Your task to perform on an android device: What's the weather going to be tomorrow? Image 0: 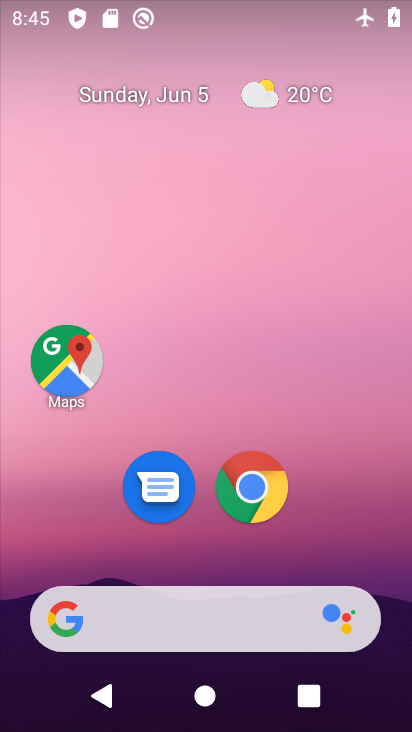
Step 0: drag from (173, 567) to (171, 336)
Your task to perform on an android device: What's the weather going to be tomorrow? Image 1: 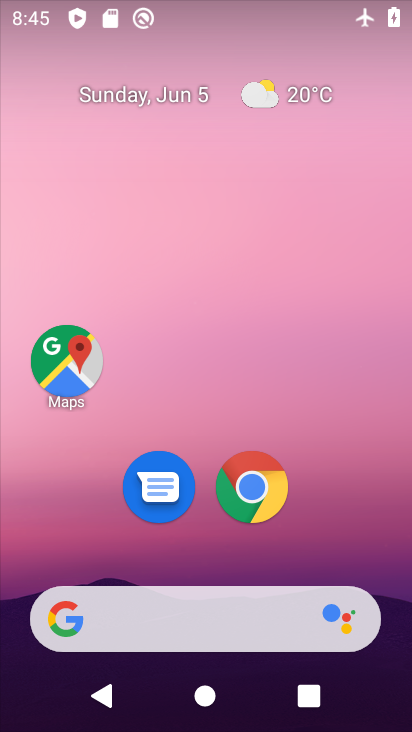
Step 1: drag from (212, 626) to (213, 439)
Your task to perform on an android device: What's the weather going to be tomorrow? Image 2: 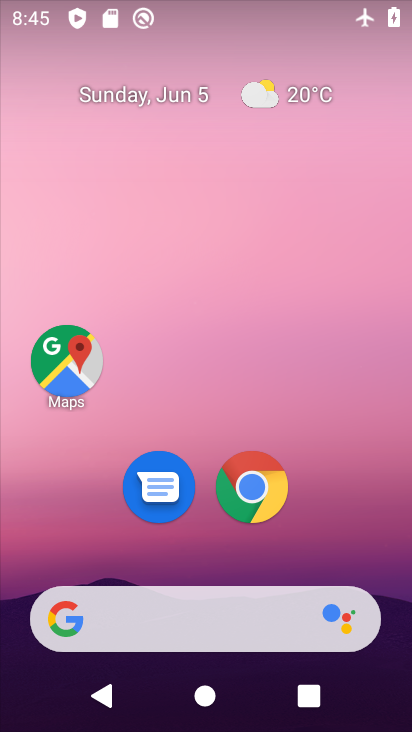
Step 2: drag from (223, 572) to (225, 349)
Your task to perform on an android device: What's the weather going to be tomorrow? Image 3: 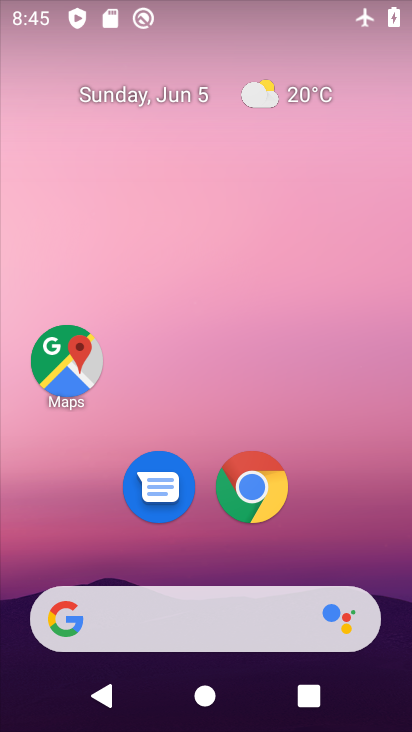
Step 3: drag from (235, 612) to (202, 332)
Your task to perform on an android device: What's the weather going to be tomorrow? Image 4: 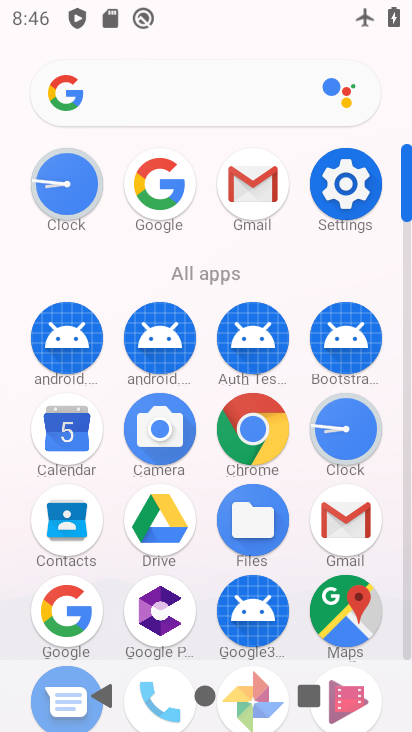
Step 4: click (74, 635)
Your task to perform on an android device: What's the weather going to be tomorrow? Image 5: 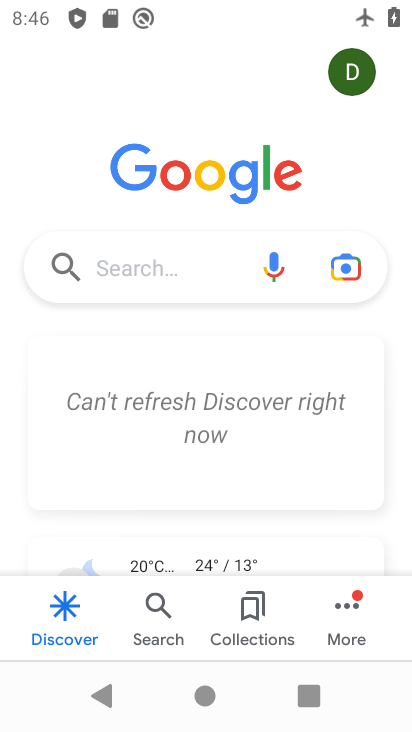
Step 5: click (175, 279)
Your task to perform on an android device: What's the weather going to be tomorrow? Image 6: 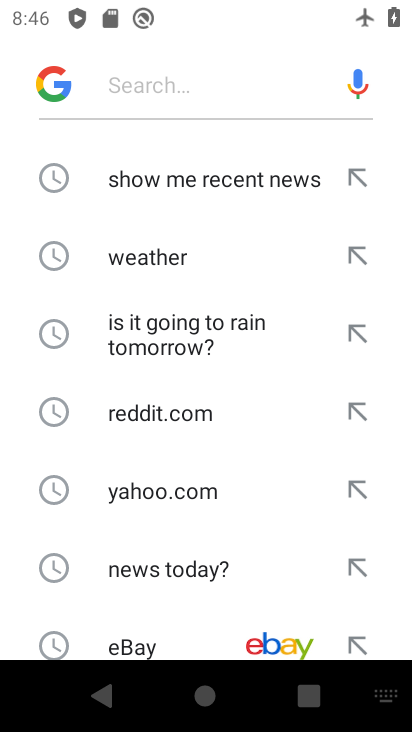
Step 6: click (187, 255)
Your task to perform on an android device: What's the weather going to be tomorrow? Image 7: 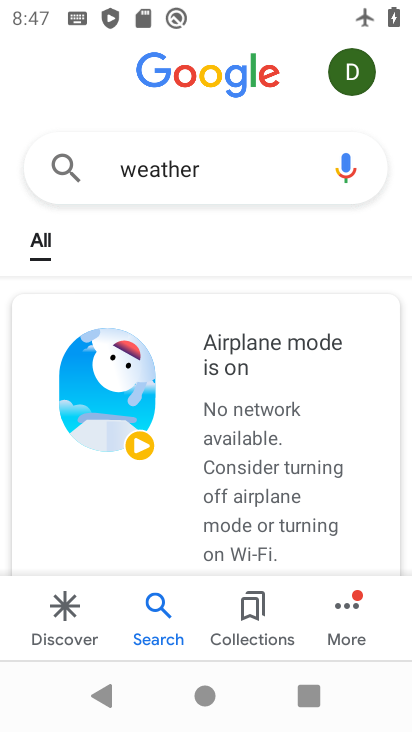
Step 7: task complete